Your task to perform on an android device: What's on my calendar today? Image 0: 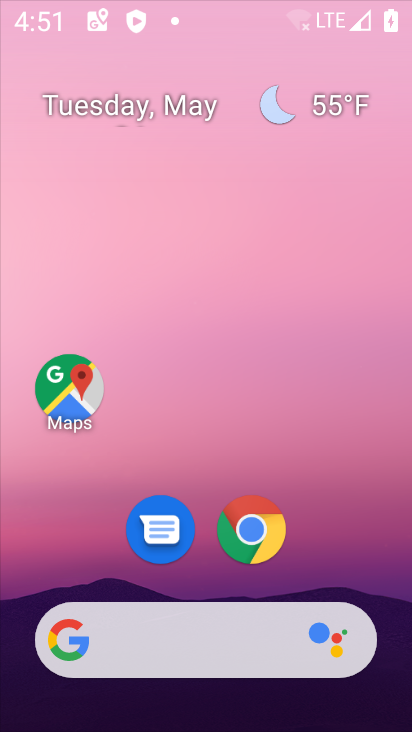
Step 0: drag from (231, 430) to (152, 79)
Your task to perform on an android device: What's on my calendar today? Image 1: 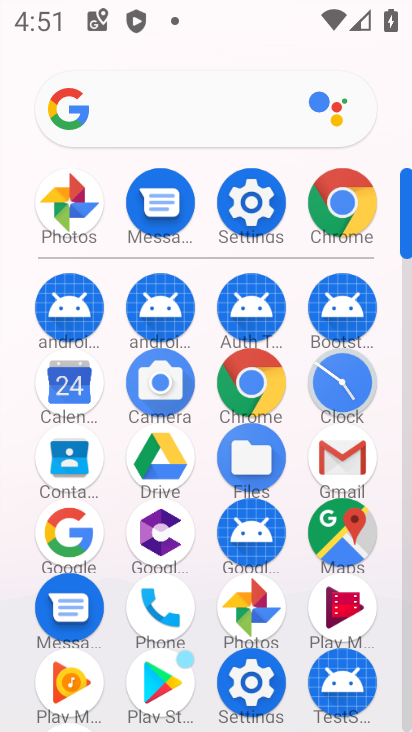
Step 1: click (63, 375)
Your task to perform on an android device: What's on my calendar today? Image 2: 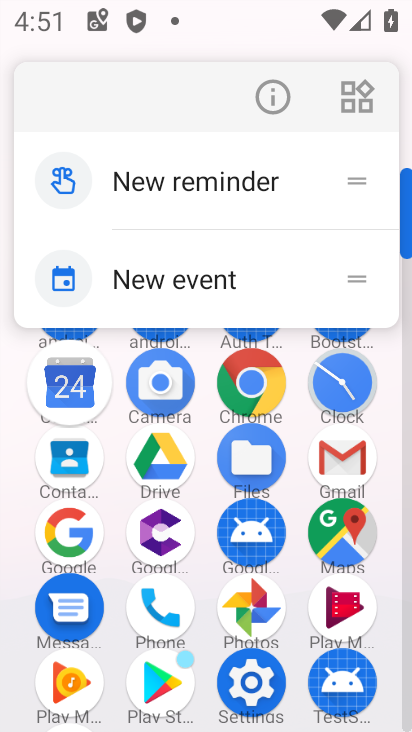
Step 2: click (64, 381)
Your task to perform on an android device: What's on my calendar today? Image 3: 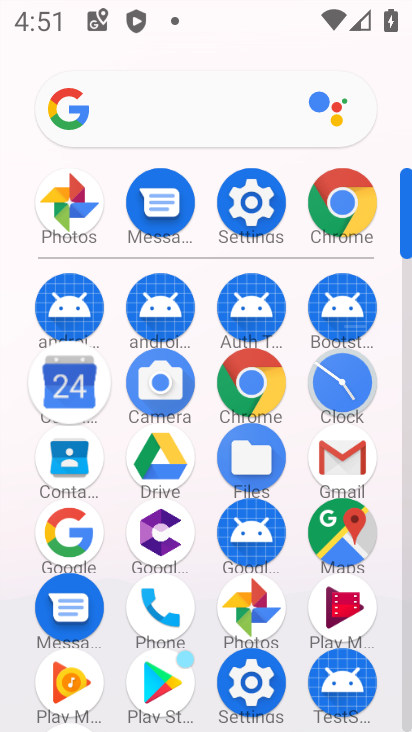
Step 3: click (68, 380)
Your task to perform on an android device: What's on my calendar today? Image 4: 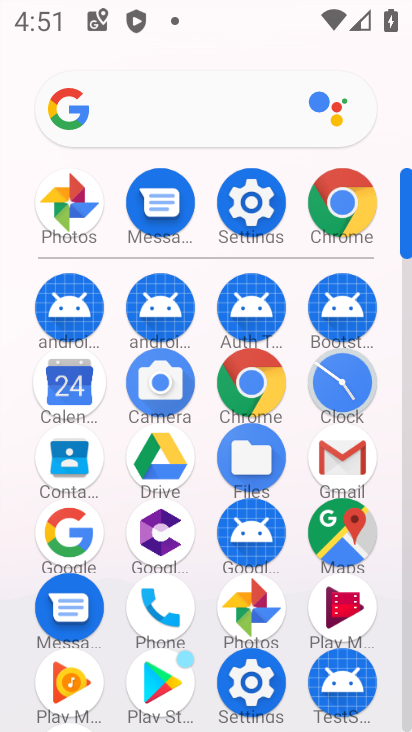
Step 4: click (68, 373)
Your task to perform on an android device: What's on my calendar today? Image 5: 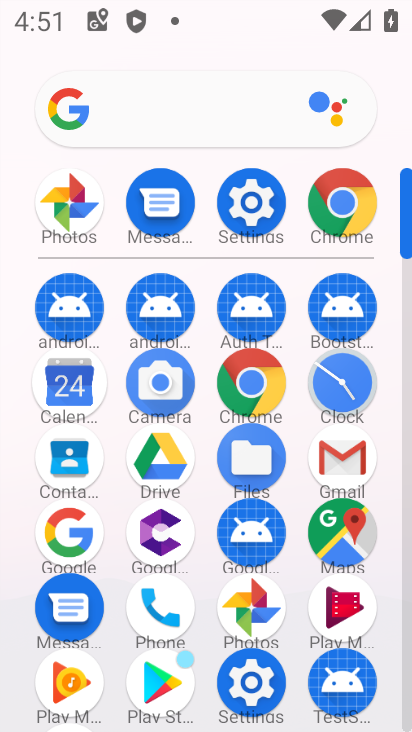
Step 5: click (69, 374)
Your task to perform on an android device: What's on my calendar today? Image 6: 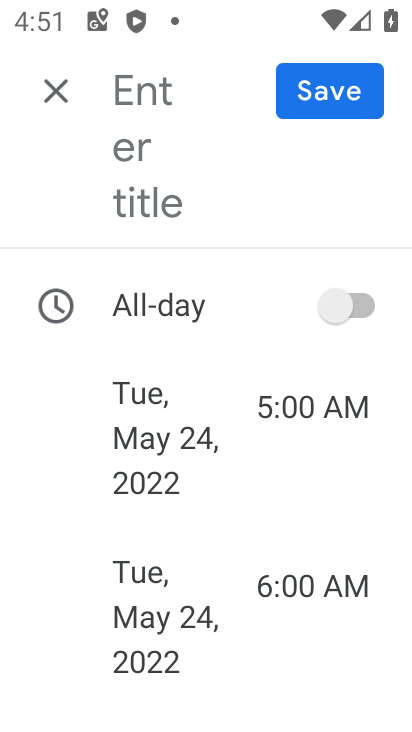
Step 6: task complete